Your task to perform on an android device: Toggle the flashlight Image 0: 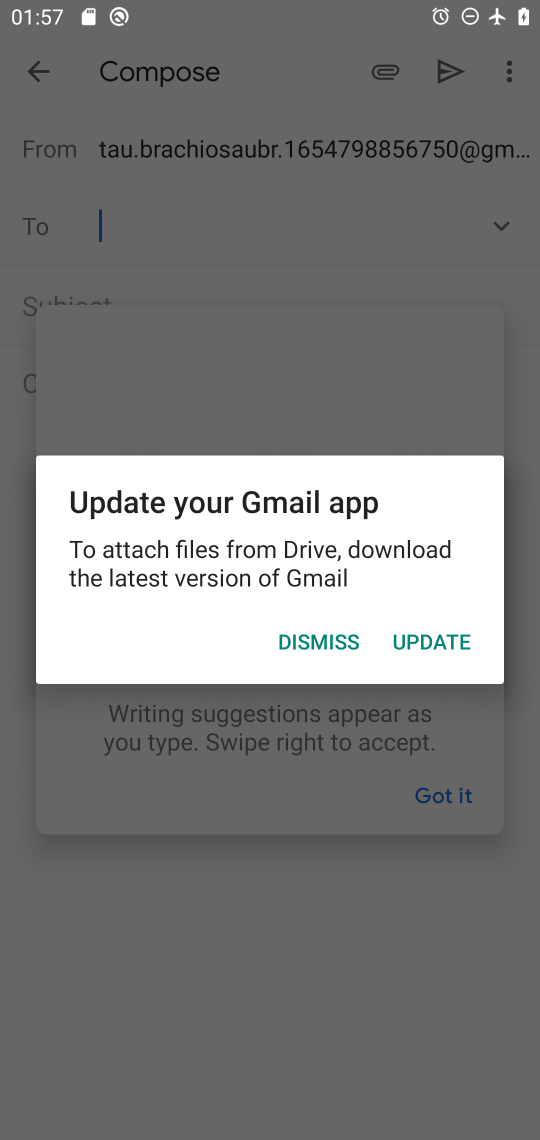
Step 0: press home button
Your task to perform on an android device: Toggle the flashlight Image 1: 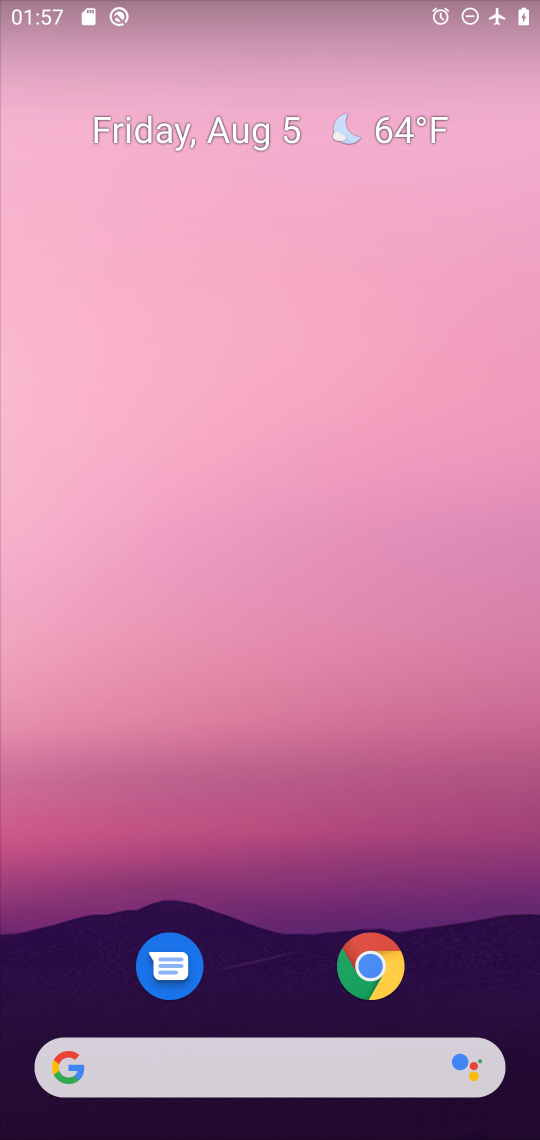
Step 1: drag from (302, 948) to (399, 0)
Your task to perform on an android device: Toggle the flashlight Image 2: 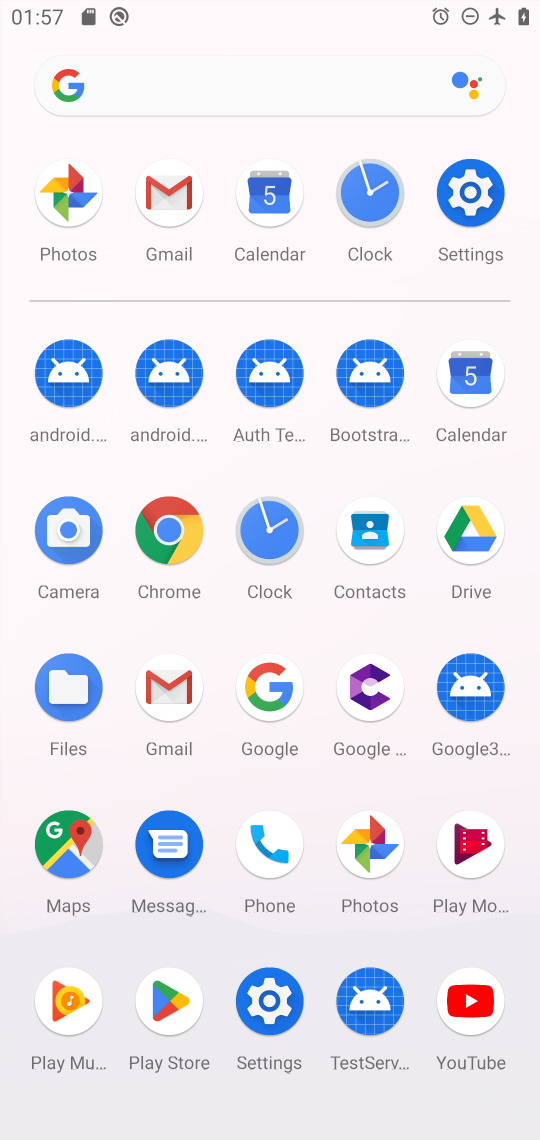
Step 2: click (467, 190)
Your task to perform on an android device: Toggle the flashlight Image 3: 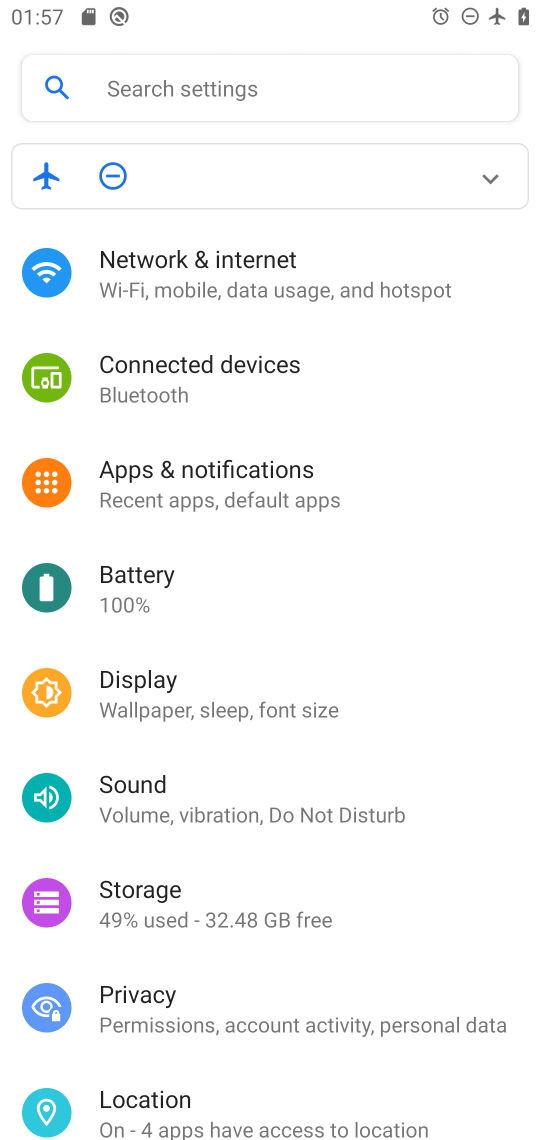
Step 3: click (356, 95)
Your task to perform on an android device: Toggle the flashlight Image 4: 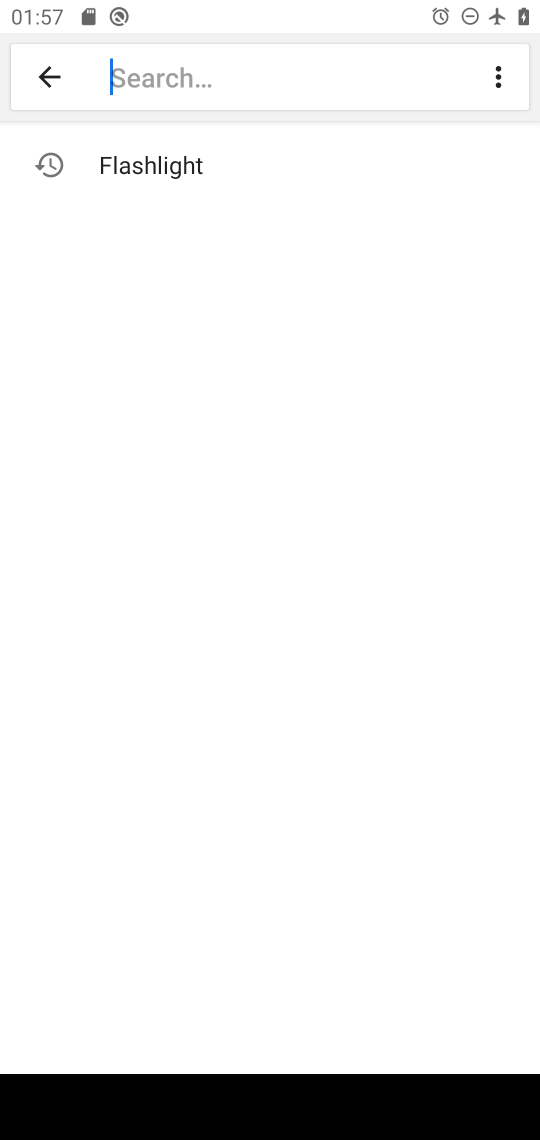
Step 4: click (178, 163)
Your task to perform on an android device: Toggle the flashlight Image 5: 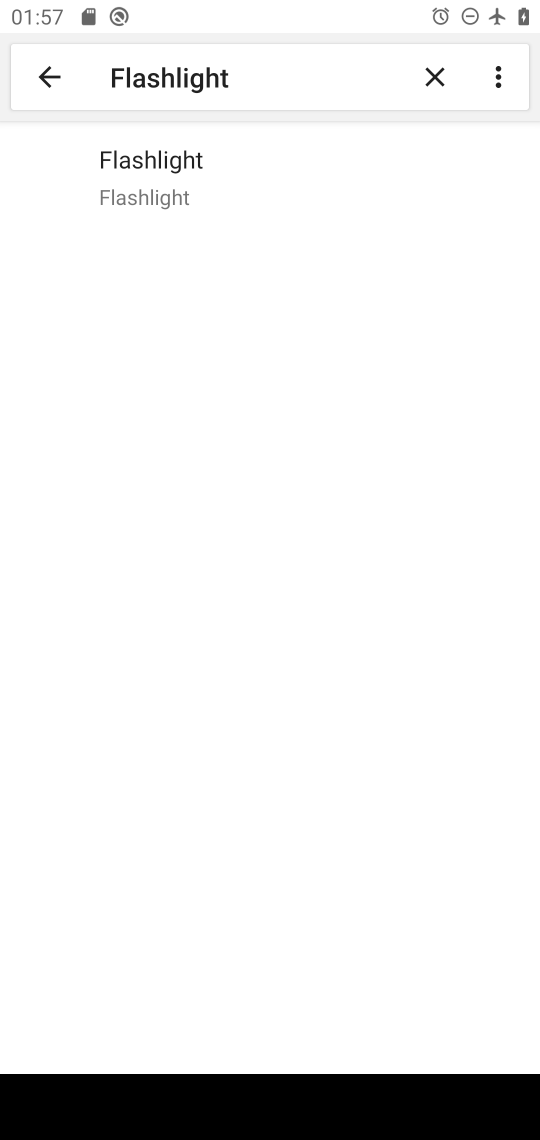
Step 5: click (120, 166)
Your task to perform on an android device: Toggle the flashlight Image 6: 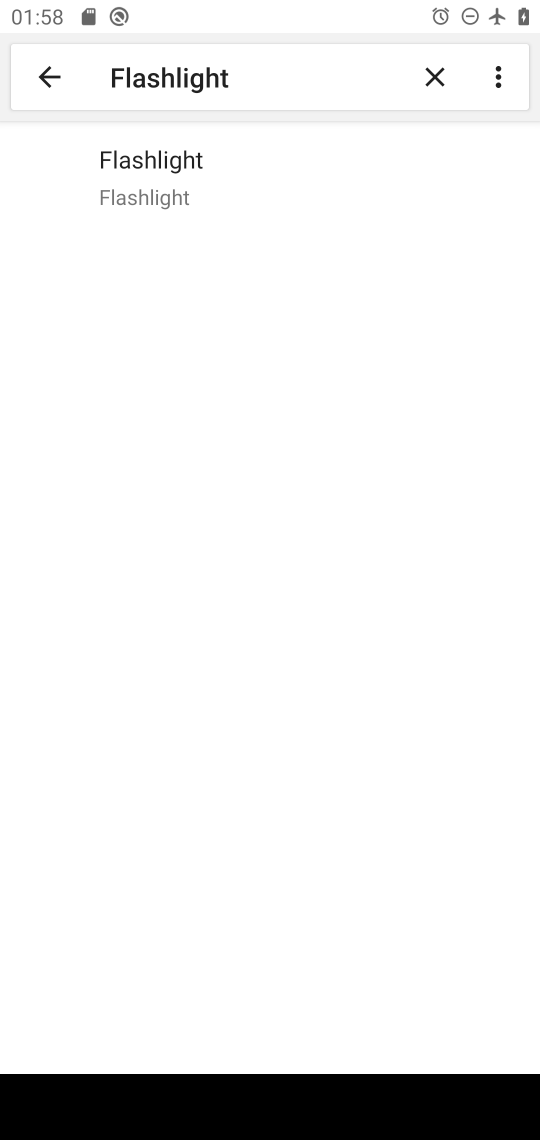
Step 6: task complete